Your task to perform on an android device: open app "Walmart Shopping & Grocery" (install if not already installed) Image 0: 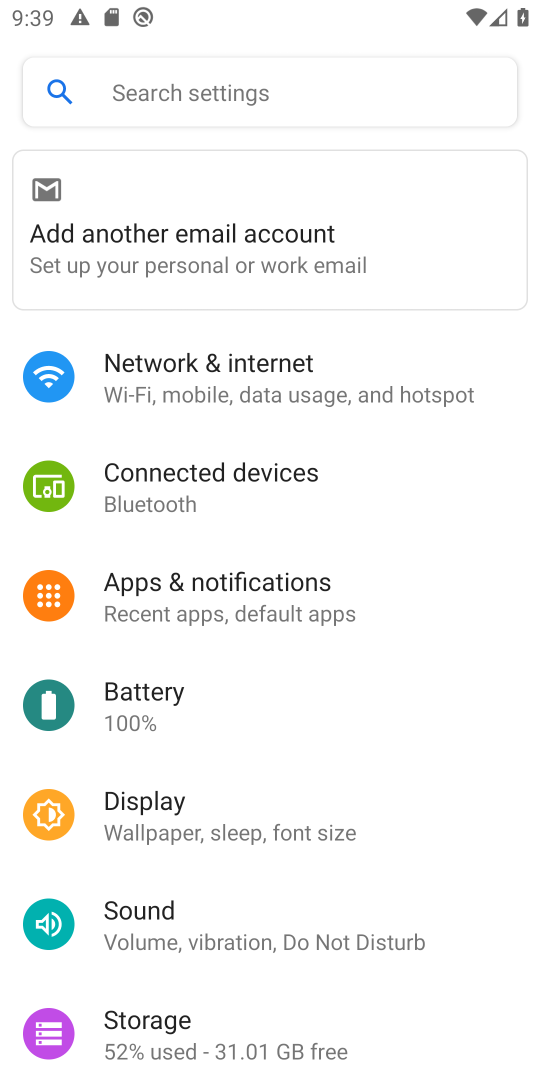
Step 0: press home button
Your task to perform on an android device: open app "Walmart Shopping & Grocery" (install if not already installed) Image 1: 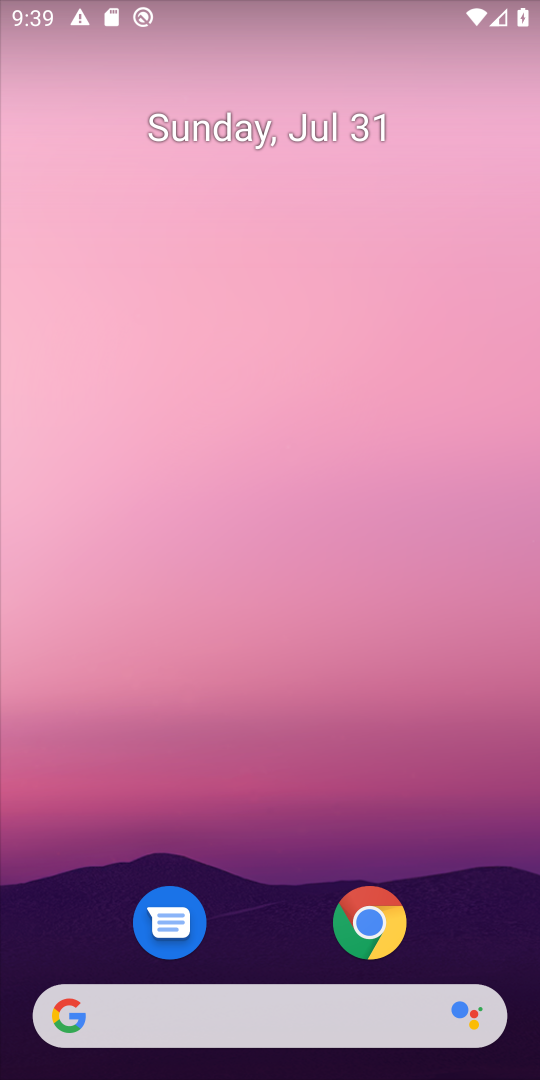
Step 1: drag from (255, 977) to (247, 90)
Your task to perform on an android device: open app "Walmart Shopping & Grocery" (install if not already installed) Image 2: 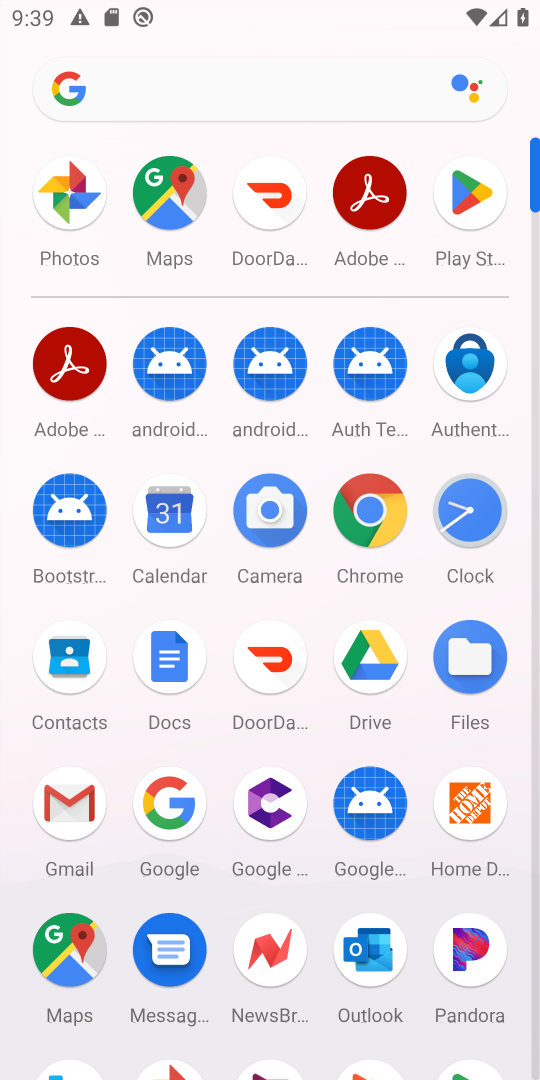
Step 2: click (463, 202)
Your task to perform on an android device: open app "Walmart Shopping & Grocery" (install if not already installed) Image 3: 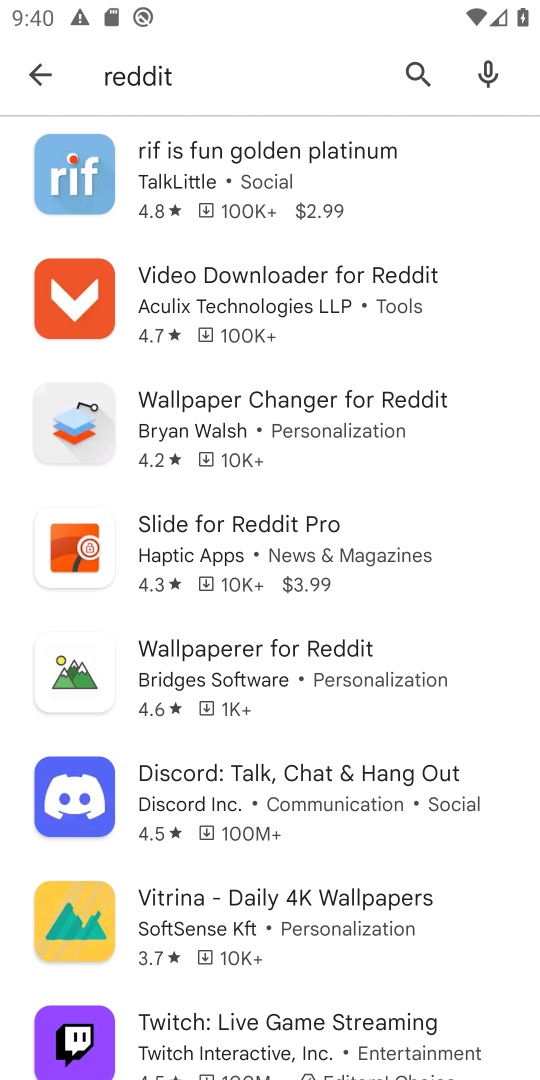
Step 3: click (417, 71)
Your task to perform on an android device: open app "Walmart Shopping & Grocery" (install if not already installed) Image 4: 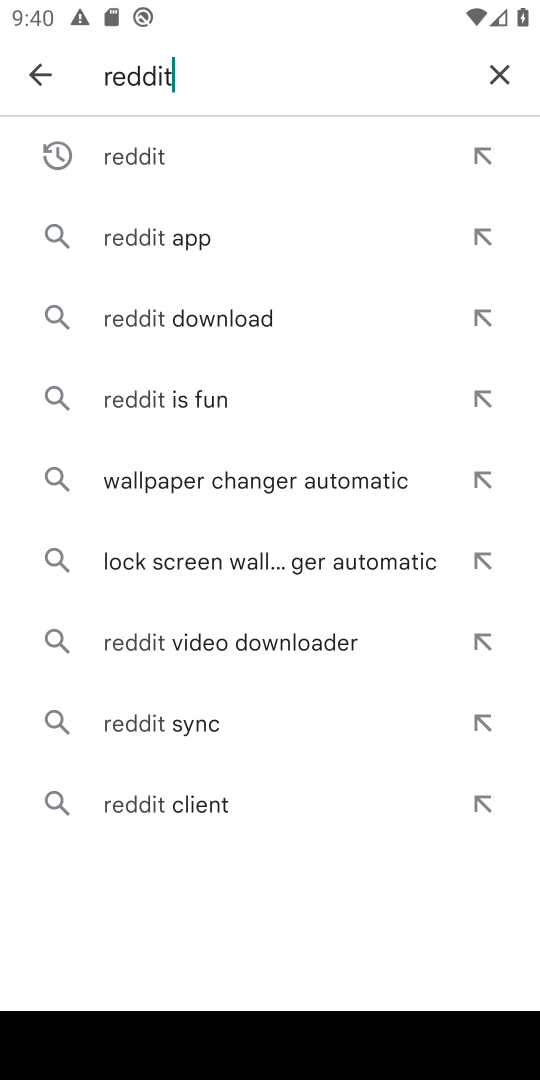
Step 4: click (503, 65)
Your task to perform on an android device: open app "Walmart Shopping & Grocery" (install if not already installed) Image 5: 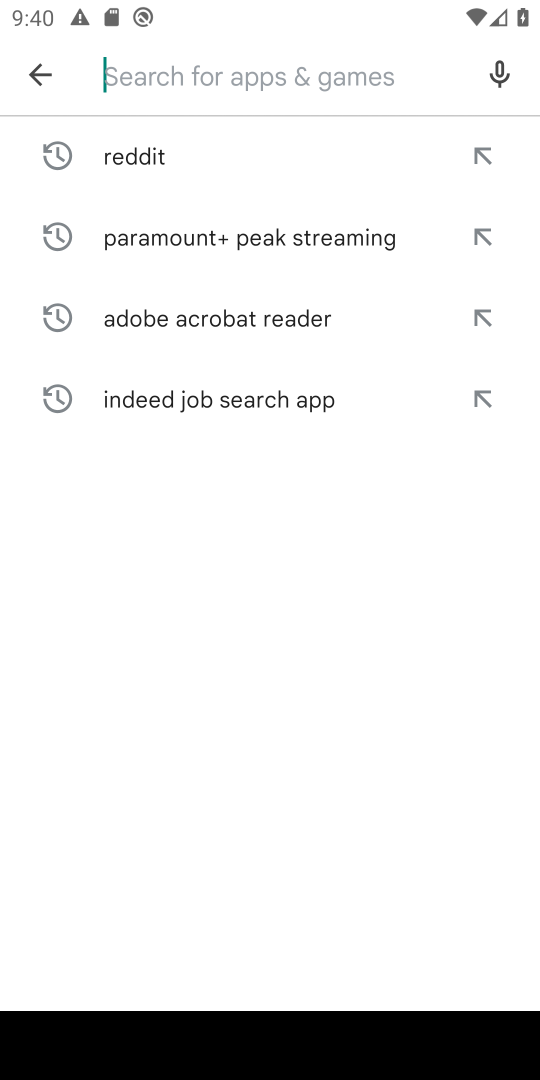
Step 5: type "Walmart Shopping & Grocery"
Your task to perform on an android device: open app "Walmart Shopping & Grocery" (install if not already installed) Image 6: 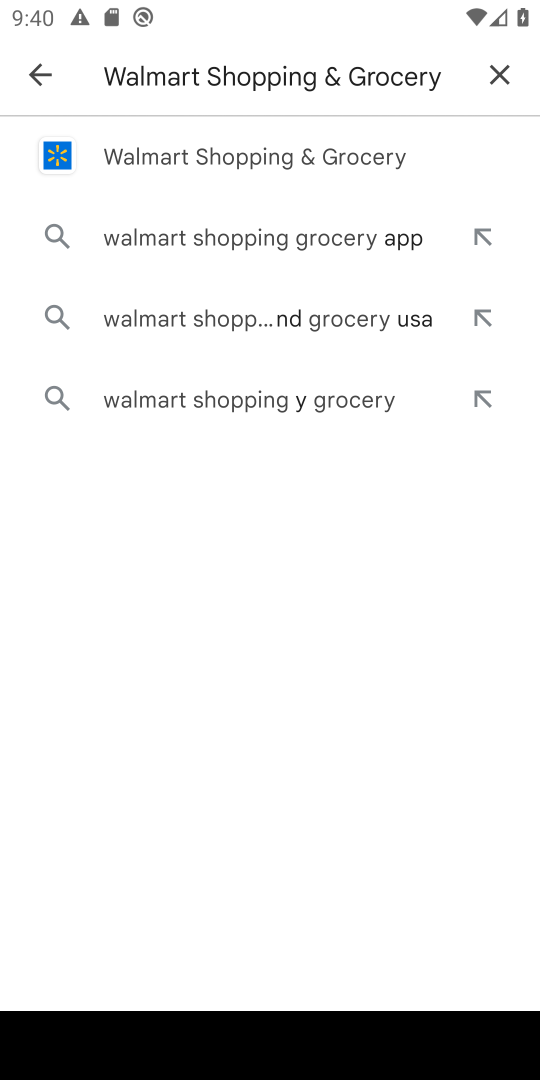
Step 6: click (143, 162)
Your task to perform on an android device: open app "Walmart Shopping & Grocery" (install if not already installed) Image 7: 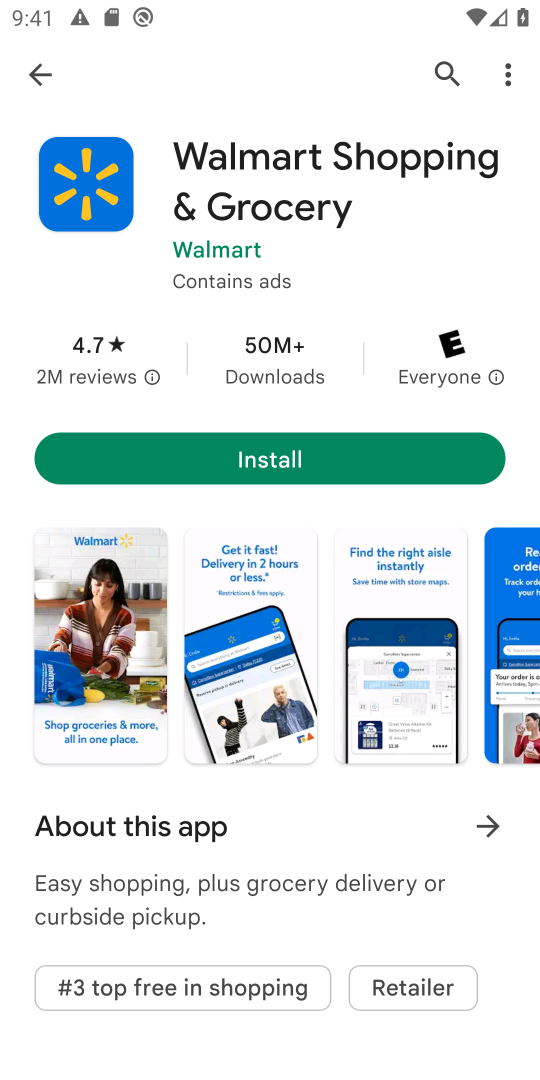
Step 7: click (293, 479)
Your task to perform on an android device: open app "Walmart Shopping & Grocery" (install if not already installed) Image 8: 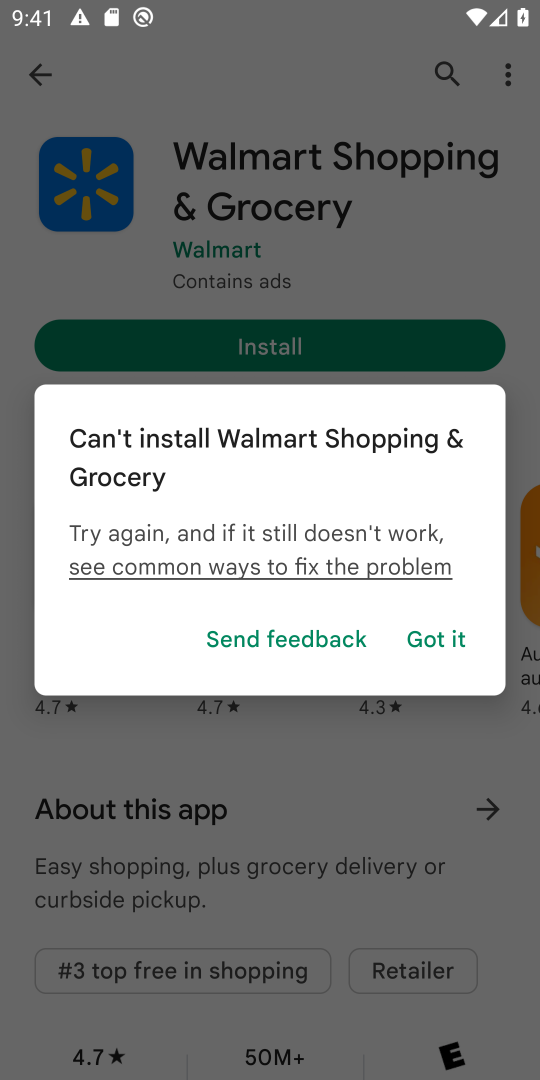
Step 8: click (422, 632)
Your task to perform on an android device: open app "Walmart Shopping & Grocery" (install if not already installed) Image 9: 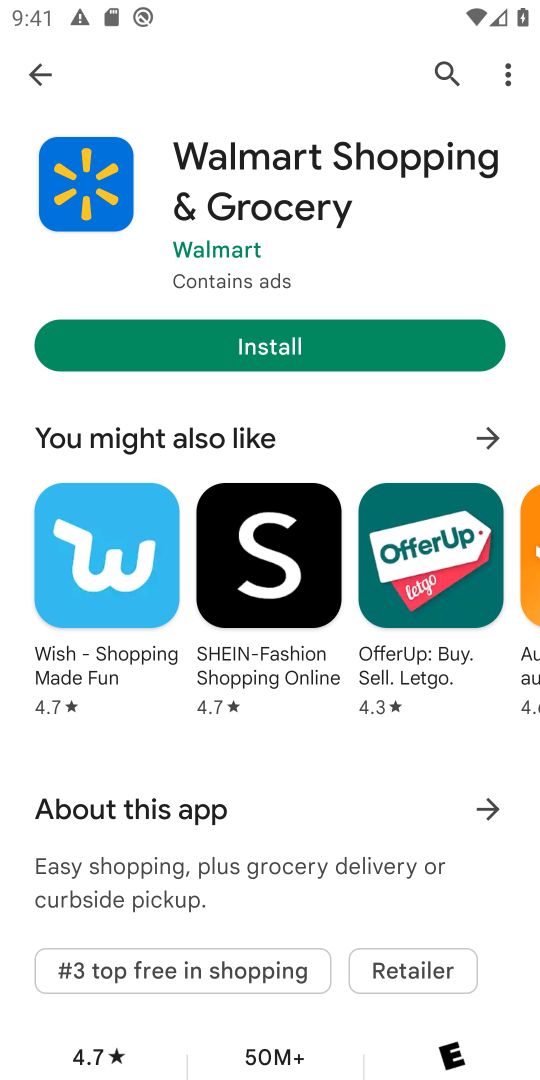
Step 9: click (303, 336)
Your task to perform on an android device: open app "Walmart Shopping & Grocery" (install if not already installed) Image 10: 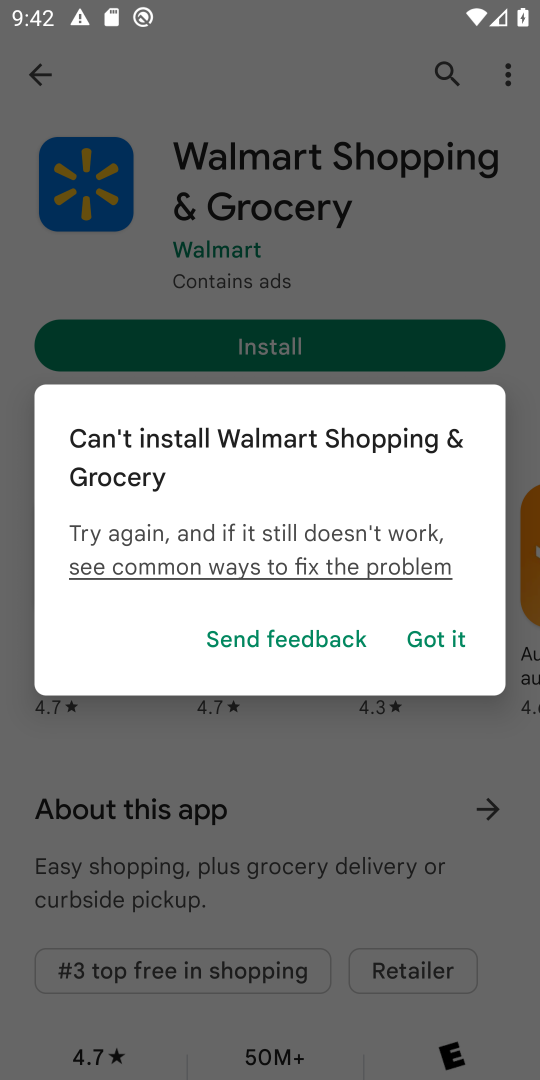
Step 10: click (440, 631)
Your task to perform on an android device: open app "Walmart Shopping & Grocery" (install if not already installed) Image 11: 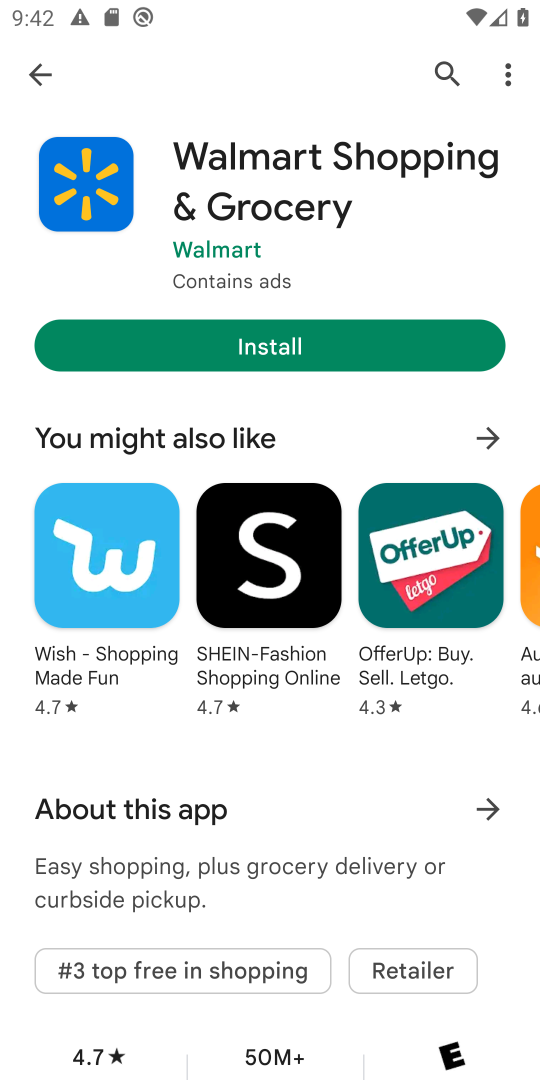
Step 11: task complete